Your task to perform on an android device: check out phone information Image 0: 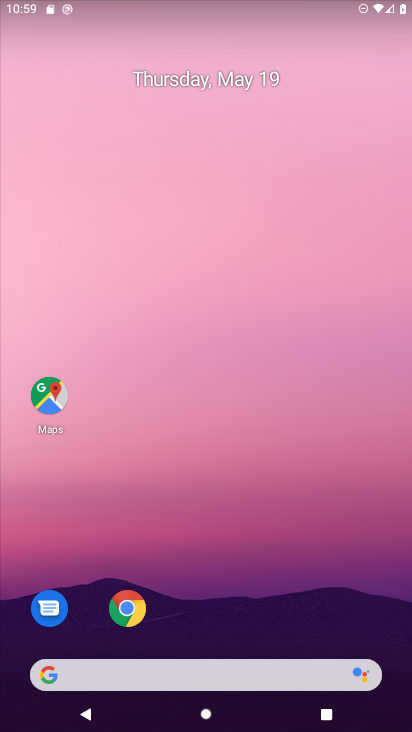
Step 0: drag from (232, 597) to (227, 212)
Your task to perform on an android device: check out phone information Image 1: 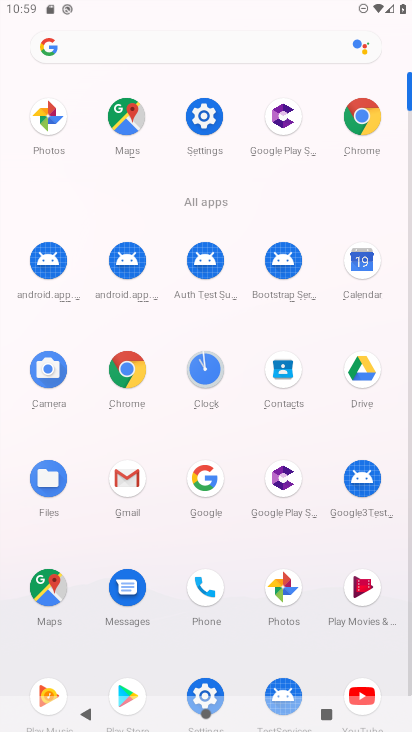
Step 1: click (197, 580)
Your task to perform on an android device: check out phone information Image 2: 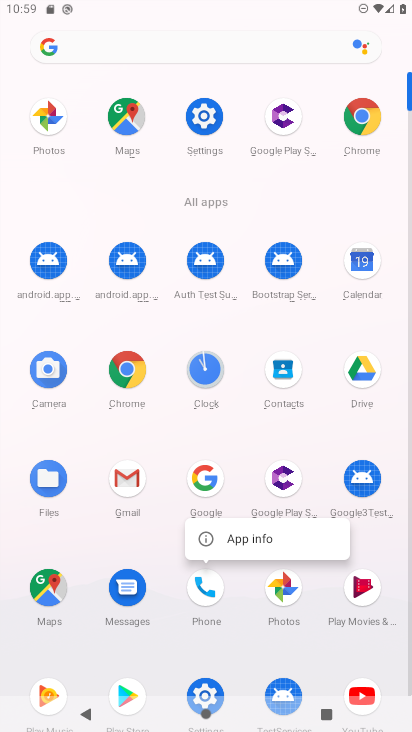
Step 2: click (247, 540)
Your task to perform on an android device: check out phone information Image 3: 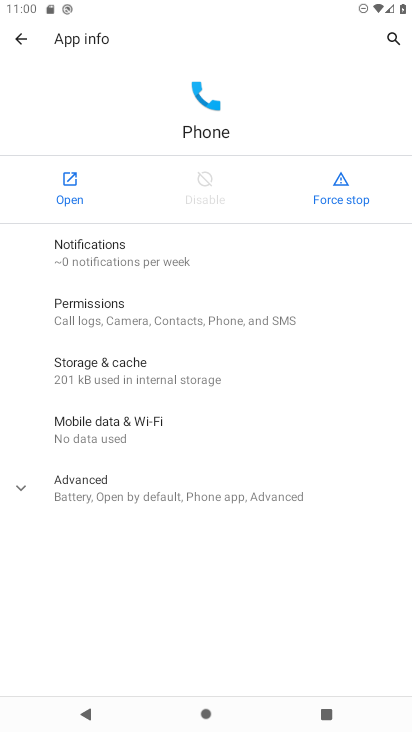
Step 3: click (100, 245)
Your task to perform on an android device: check out phone information Image 4: 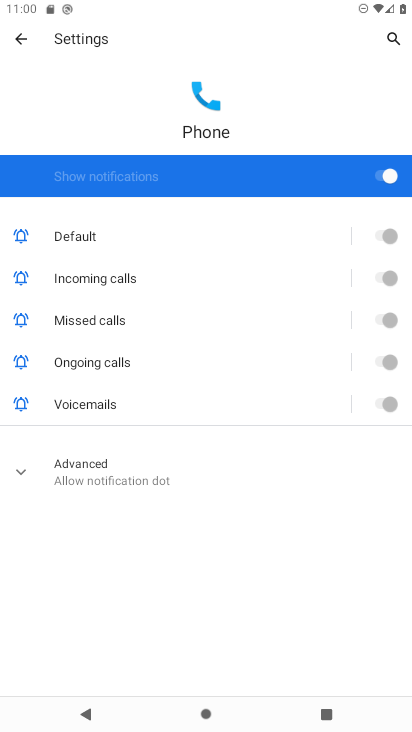
Step 4: click (20, 35)
Your task to perform on an android device: check out phone information Image 5: 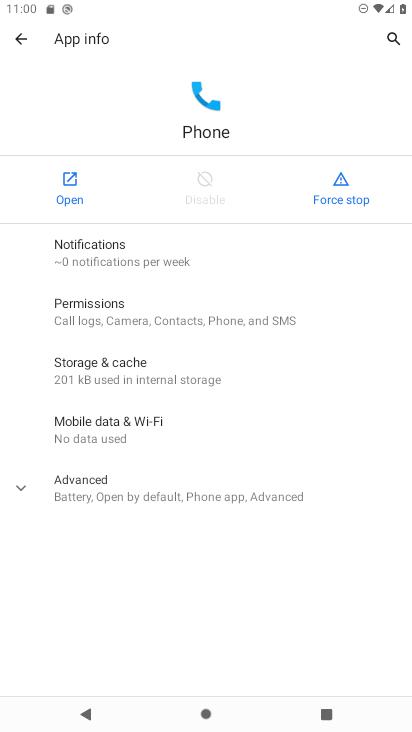
Step 5: task complete